Your task to perform on an android device: delete location history Image 0: 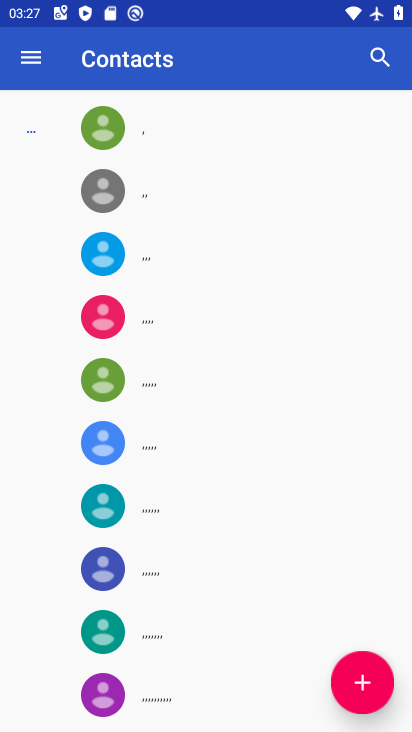
Step 0: press home button
Your task to perform on an android device: delete location history Image 1: 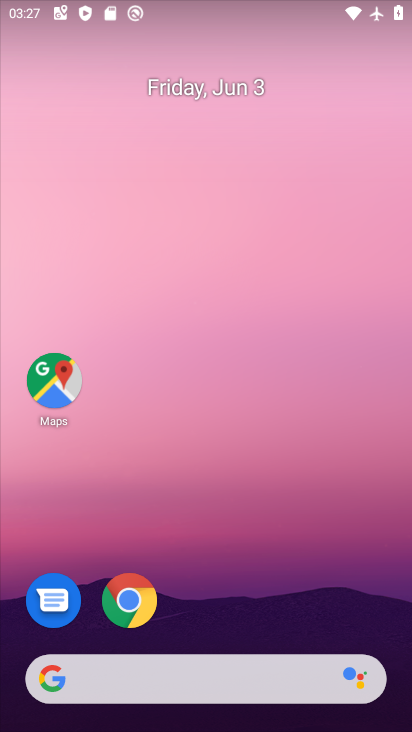
Step 1: click (55, 384)
Your task to perform on an android device: delete location history Image 2: 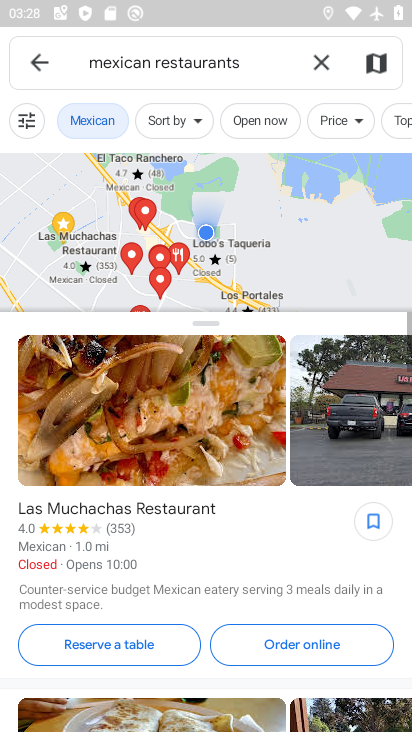
Step 2: click (38, 62)
Your task to perform on an android device: delete location history Image 3: 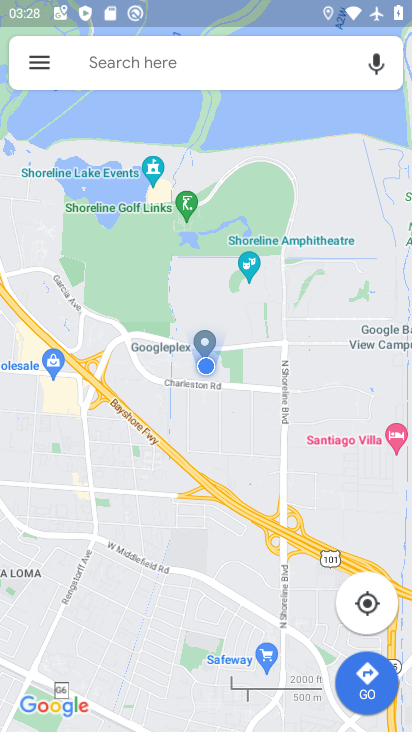
Step 3: click (20, 51)
Your task to perform on an android device: delete location history Image 4: 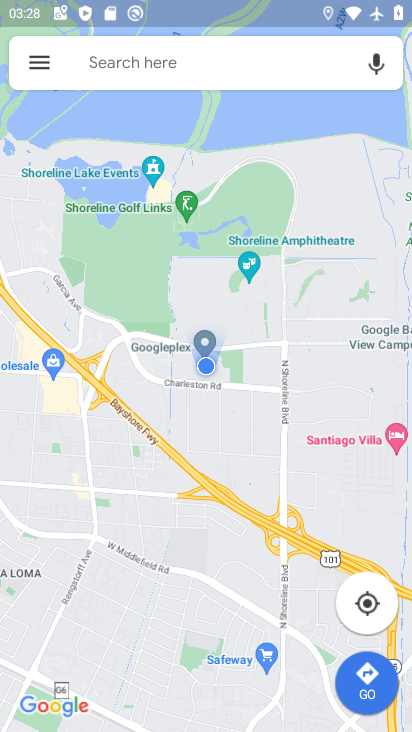
Step 4: click (47, 74)
Your task to perform on an android device: delete location history Image 5: 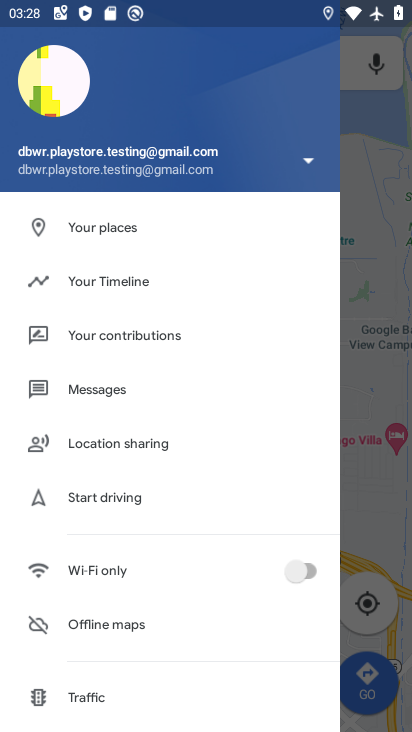
Step 5: click (122, 276)
Your task to perform on an android device: delete location history Image 6: 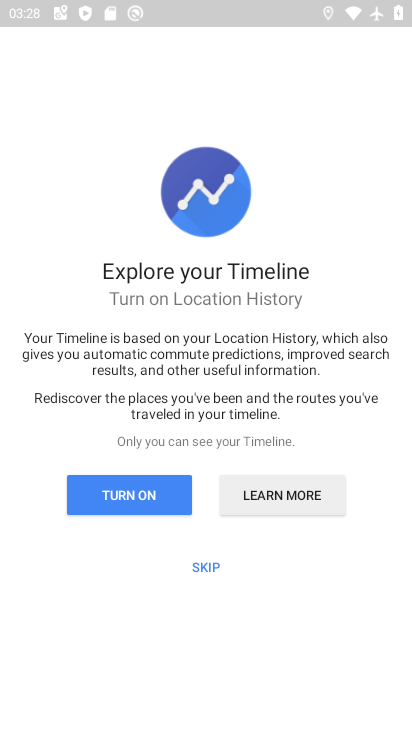
Step 6: click (209, 561)
Your task to perform on an android device: delete location history Image 7: 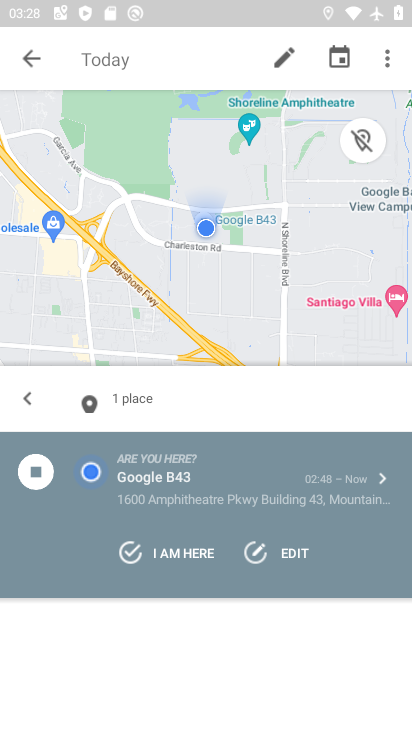
Step 7: click (376, 50)
Your task to perform on an android device: delete location history Image 8: 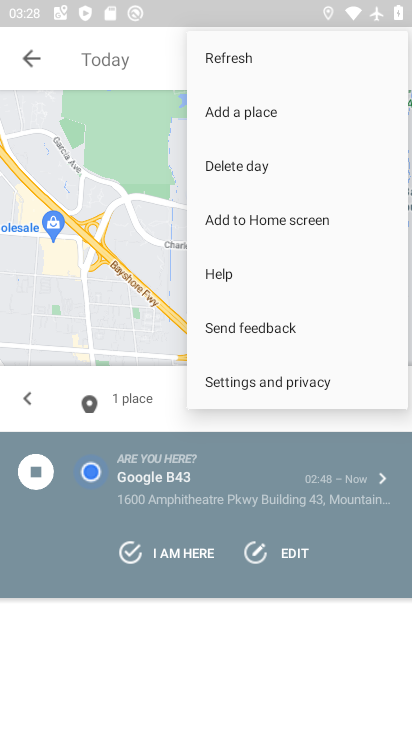
Step 8: click (259, 379)
Your task to perform on an android device: delete location history Image 9: 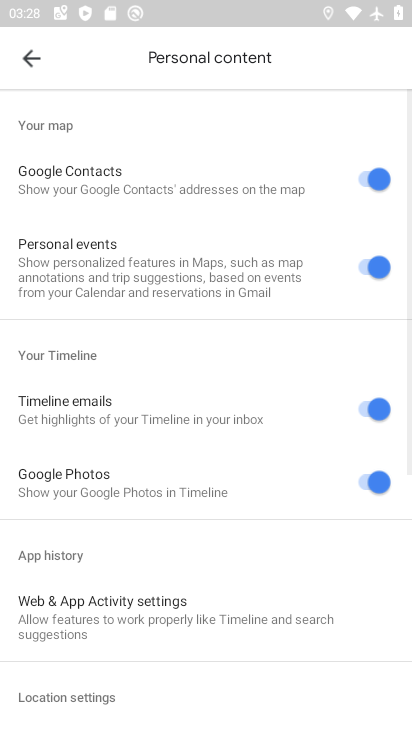
Step 9: drag from (185, 567) to (234, 202)
Your task to perform on an android device: delete location history Image 10: 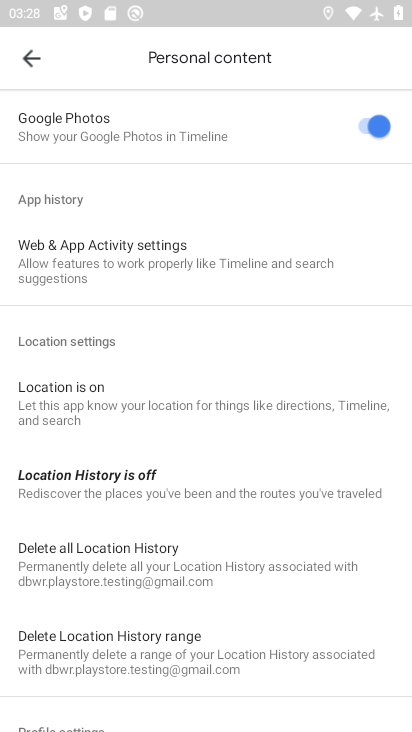
Step 10: click (169, 550)
Your task to perform on an android device: delete location history Image 11: 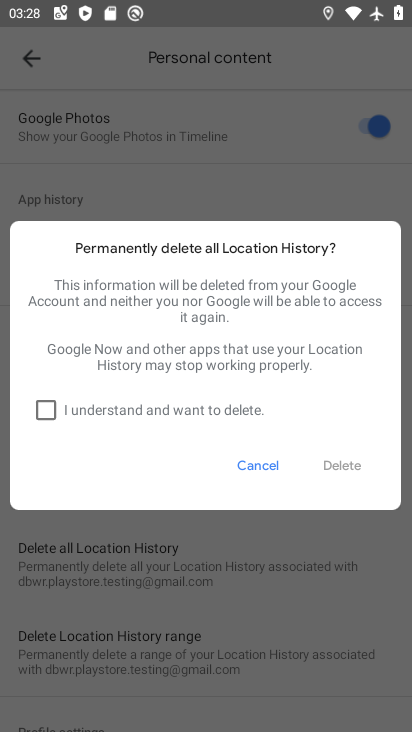
Step 11: click (115, 411)
Your task to perform on an android device: delete location history Image 12: 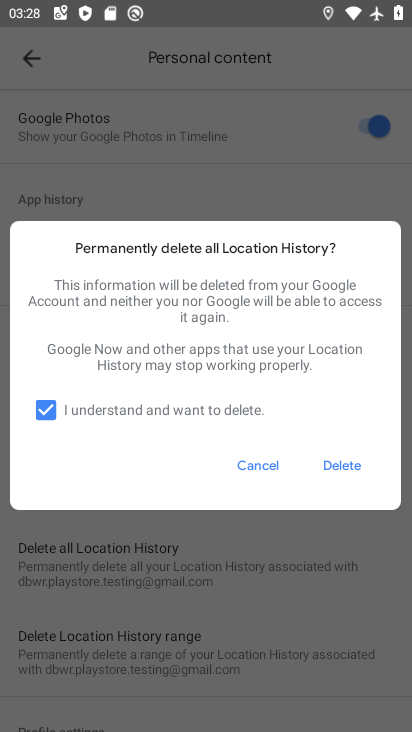
Step 12: click (353, 464)
Your task to perform on an android device: delete location history Image 13: 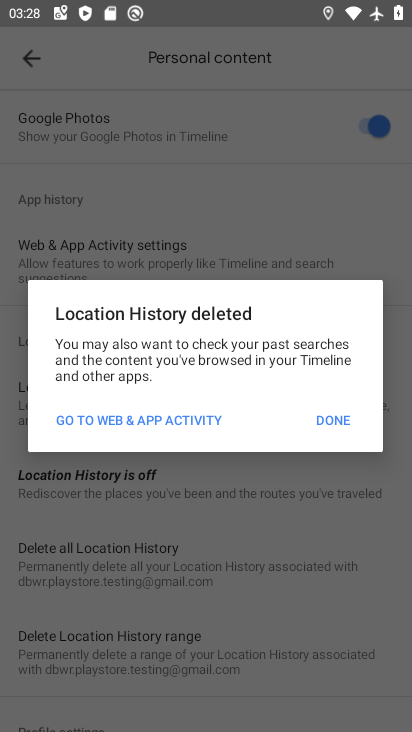
Step 13: click (337, 423)
Your task to perform on an android device: delete location history Image 14: 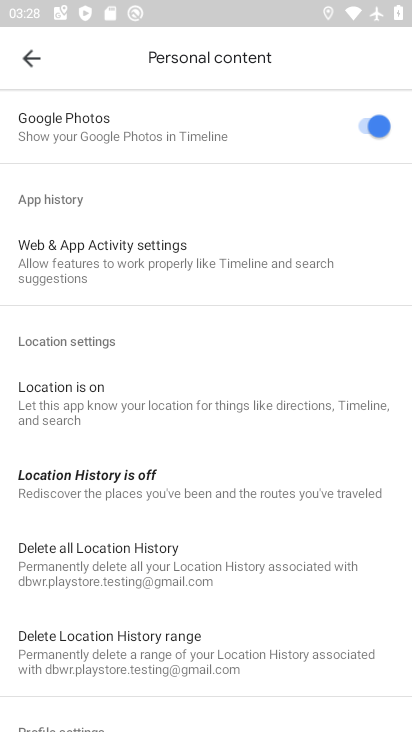
Step 14: task complete